Your task to perform on an android device: Open calendar and show me the third week of next month Image 0: 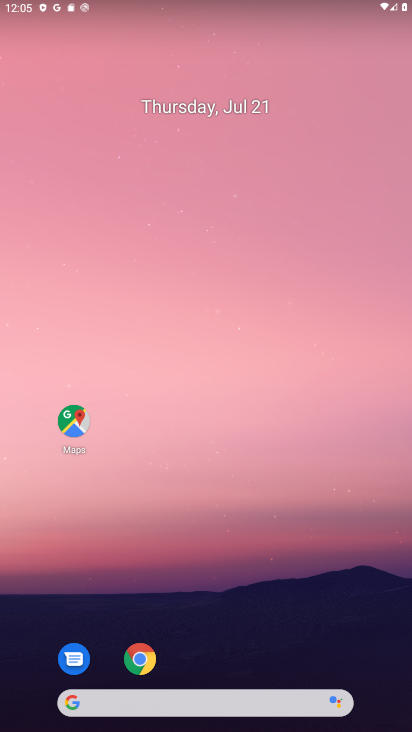
Step 0: drag from (295, 631) to (225, 169)
Your task to perform on an android device: Open calendar and show me the third week of next month Image 1: 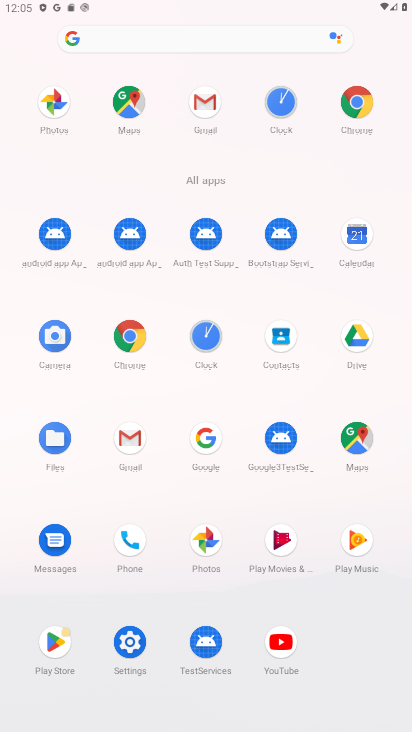
Step 1: click (358, 236)
Your task to perform on an android device: Open calendar and show me the third week of next month Image 2: 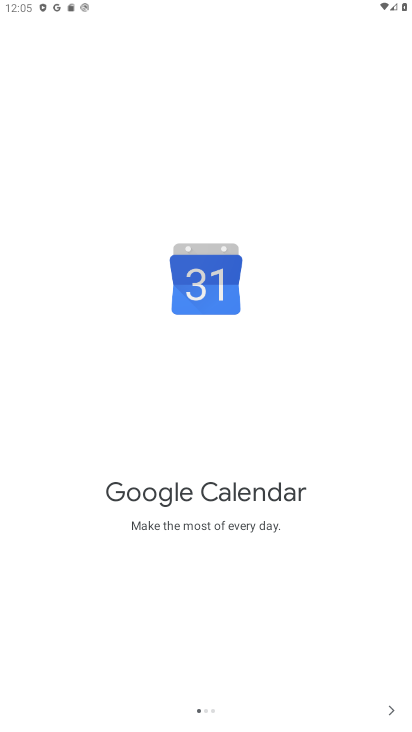
Step 2: click (389, 707)
Your task to perform on an android device: Open calendar and show me the third week of next month Image 3: 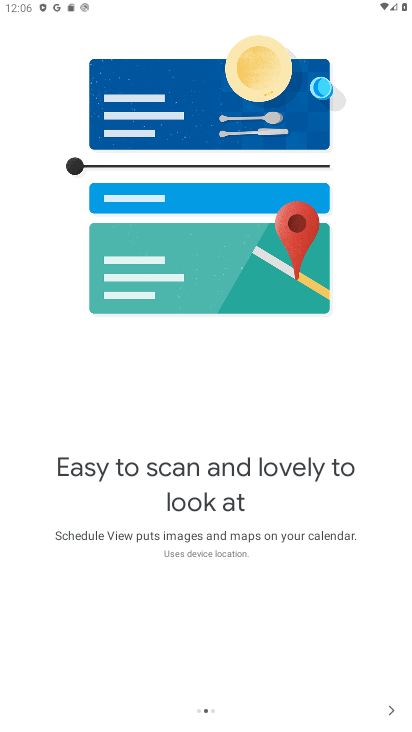
Step 3: click (397, 708)
Your task to perform on an android device: Open calendar and show me the third week of next month Image 4: 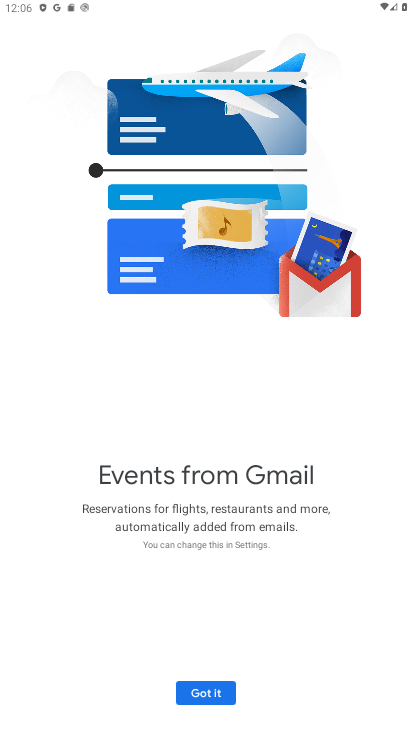
Step 4: click (214, 694)
Your task to perform on an android device: Open calendar and show me the third week of next month Image 5: 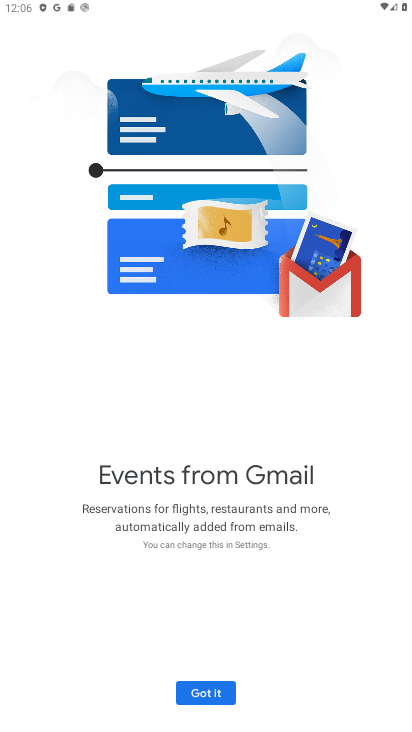
Step 5: click (214, 694)
Your task to perform on an android device: Open calendar and show me the third week of next month Image 6: 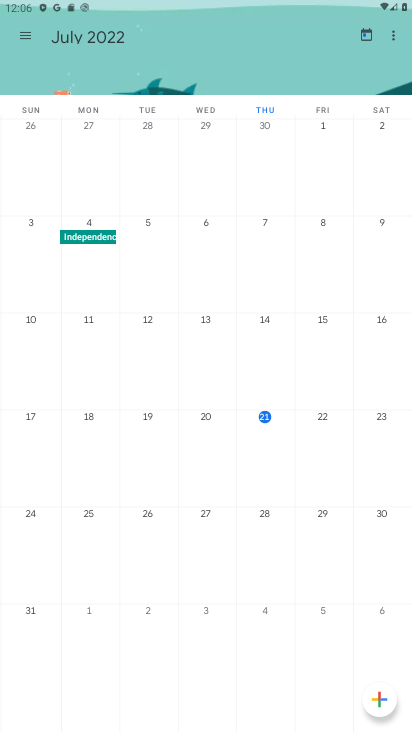
Step 6: click (22, 34)
Your task to perform on an android device: Open calendar and show me the third week of next month Image 7: 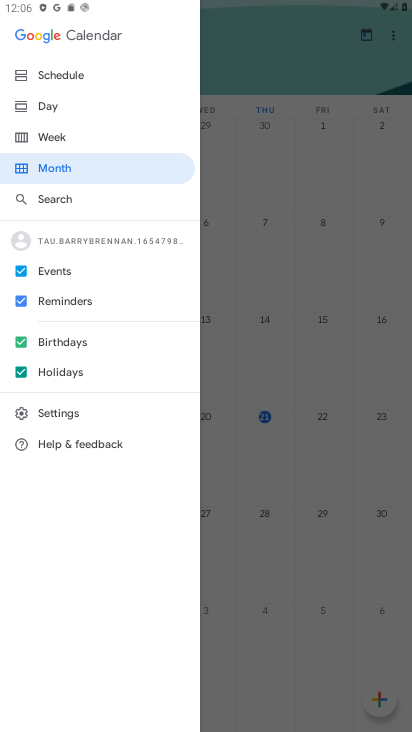
Step 7: click (68, 139)
Your task to perform on an android device: Open calendar and show me the third week of next month Image 8: 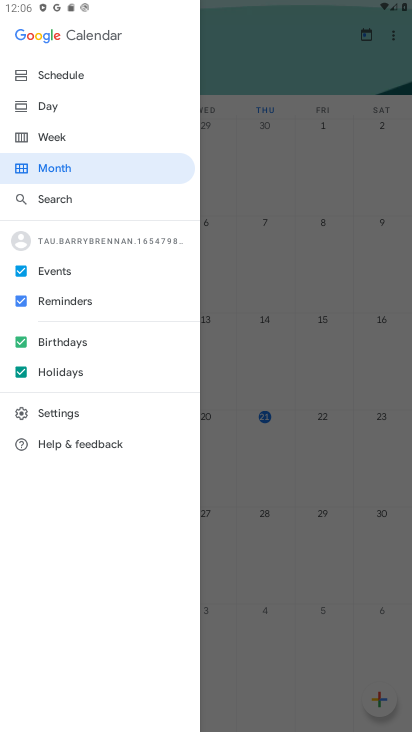
Step 8: click (67, 141)
Your task to perform on an android device: Open calendar and show me the third week of next month Image 9: 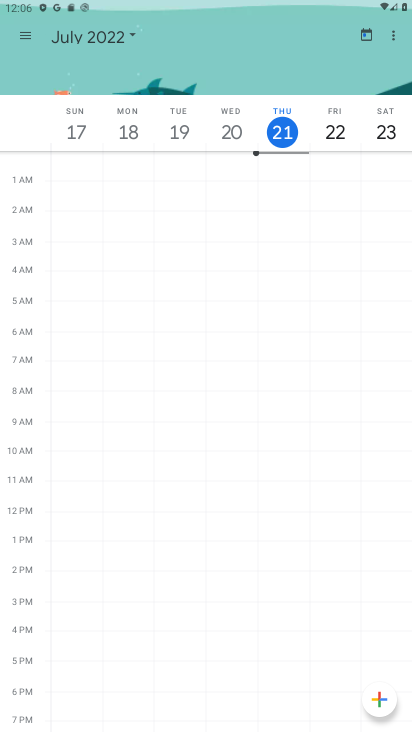
Step 9: click (126, 38)
Your task to perform on an android device: Open calendar and show me the third week of next month Image 10: 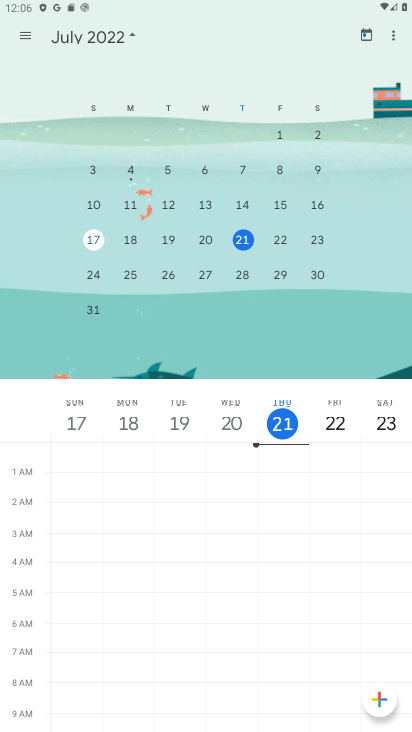
Step 10: drag from (359, 223) to (23, 222)
Your task to perform on an android device: Open calendar and show me the third week of next month Image 11: 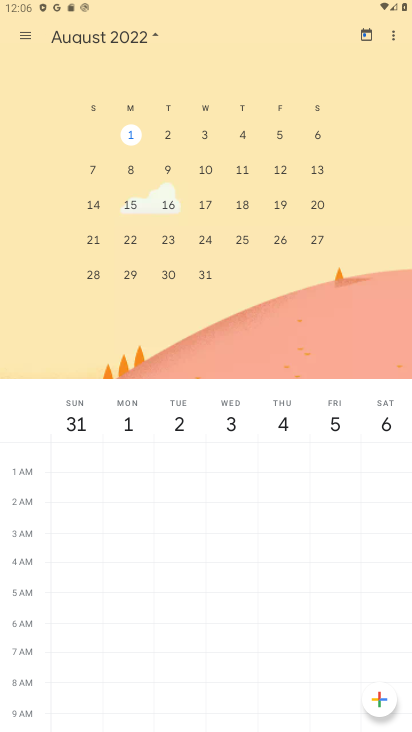
Step 11: click (197, 202)
Your task to perform on an android device: Open calendar and show me the third week of next month Image 12: 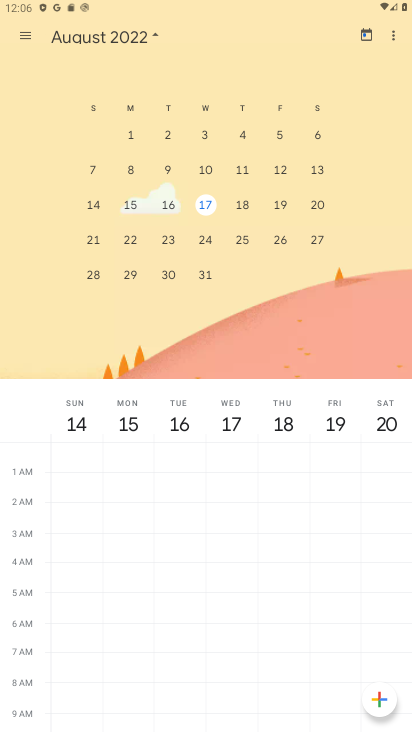
Step 12: task complete